Your task to perform on an android device: Go to sound settings Image 0: 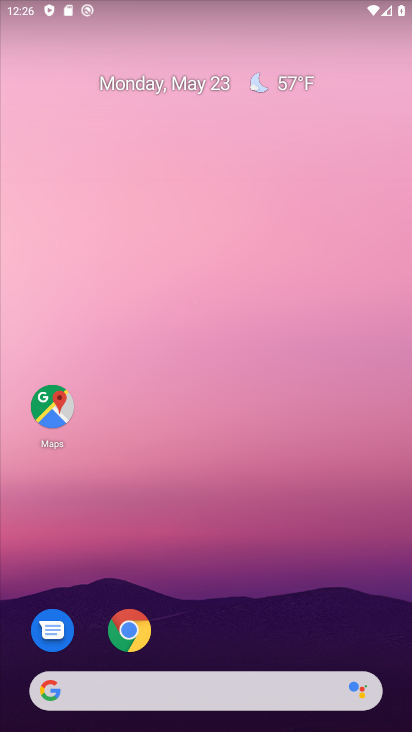
Step 0: drag from (241, 598) to (181, 26)
Your task to perform on an android device: Go to sound settings Image 1: 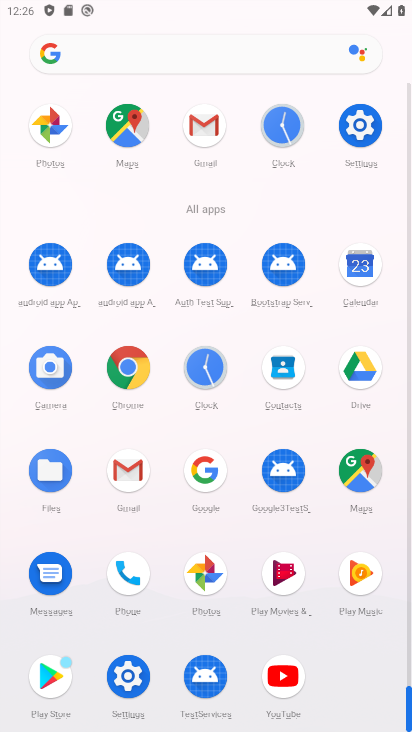
Step 1: click (124, 673)
Your task to perform on an android device: Go to sound settings Image 2: 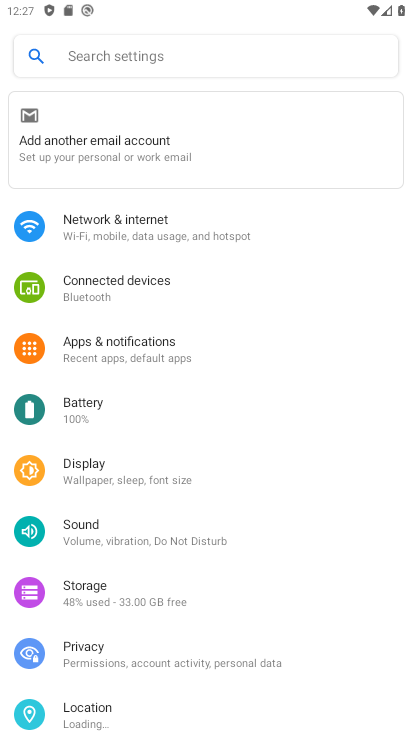
Step 2: click (122, 533)
Your task to perform on an android device: Go to sound settings Image 3: 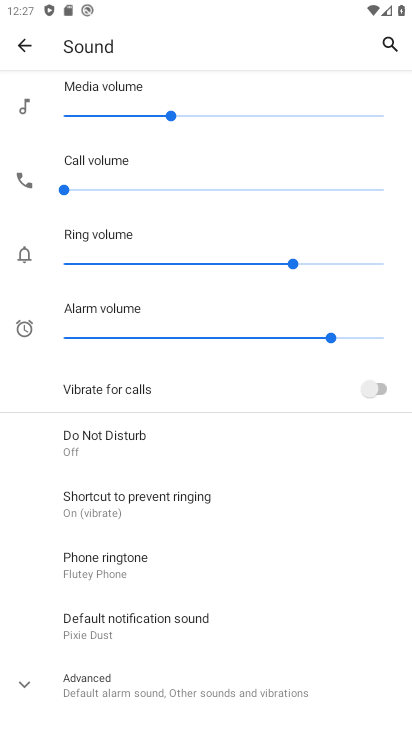
Step 3: click (24, 673)
Your task to perform on an android device: Go to sound settings Image 4: 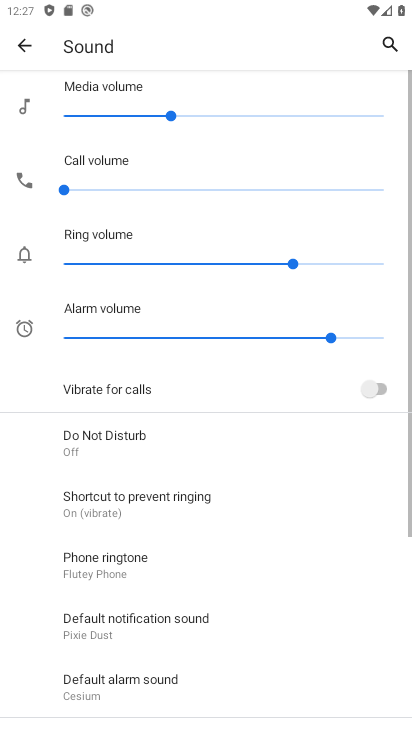
Step 4: task complete